Your task to perform on an android device: Is it going to rain tomorrow? Image 0: 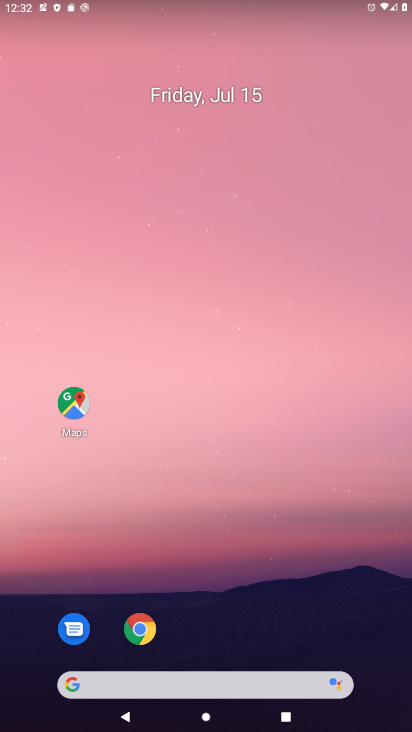
Step 0: click (68, 681)
Your task to perform on an android device: Is it going to rain tomorrow? Image 1: 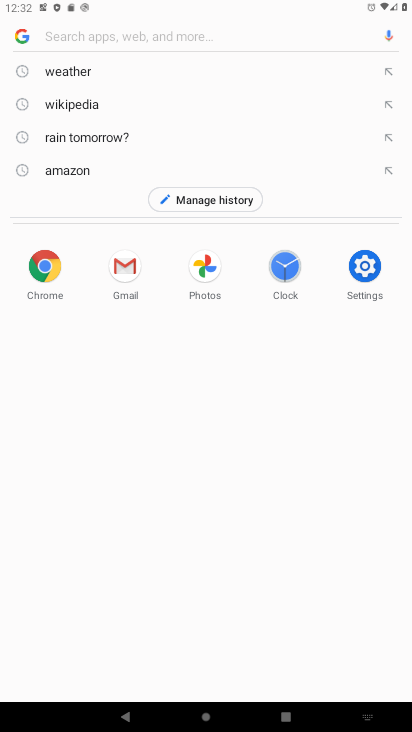
Step 1: click (93, 138)
Your task to perform on an android device: Is it going to rain tomorrow? Image 2: 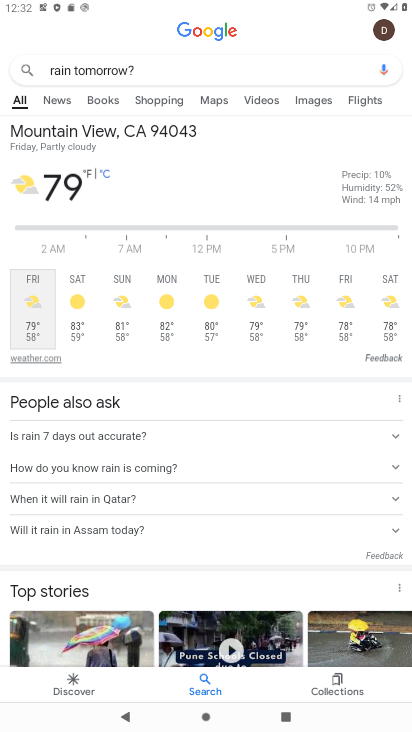
Step 2: task complete